Your task to perform on an android device: Open Amazon Image 0: 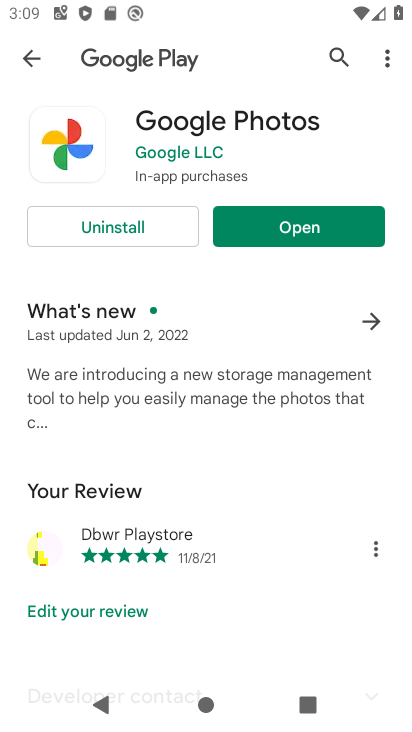
Step 0: press home button
Your task to perform on an android device: Open Amazon Image 1: 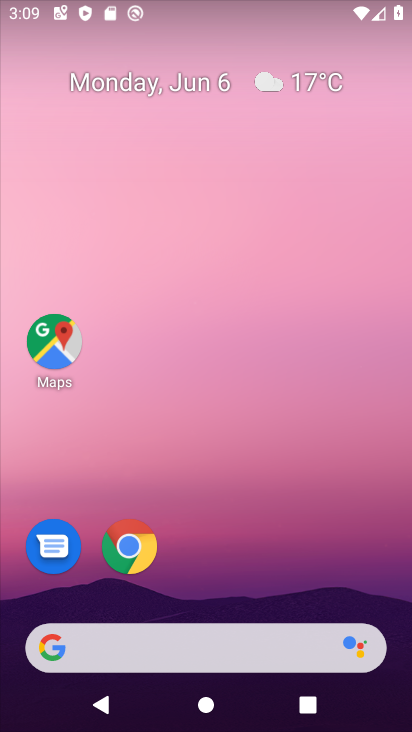
Step 1: click (229, 630)
Your task to perform on an android device: Open Amazon Image 2: 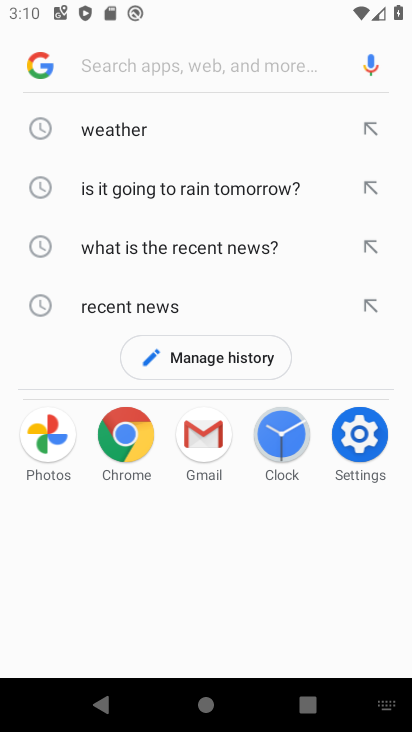
Step 2: type "amazonej"
Your task to perform on an android device: Open Amazon Image 3: 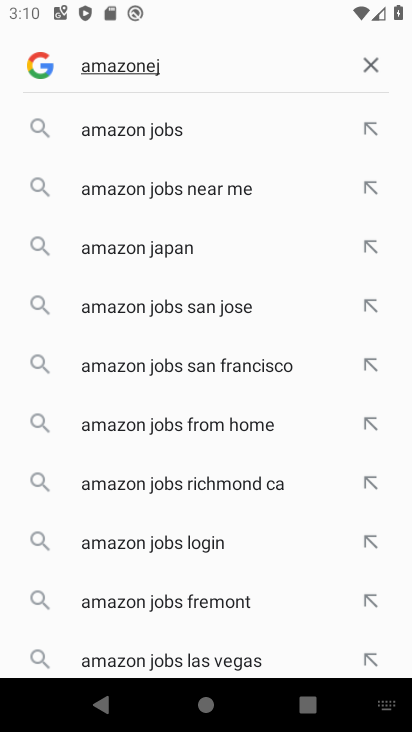
Step 3: click (172, 529)
Your task to perform on an android device: Open Amazon Image 4: 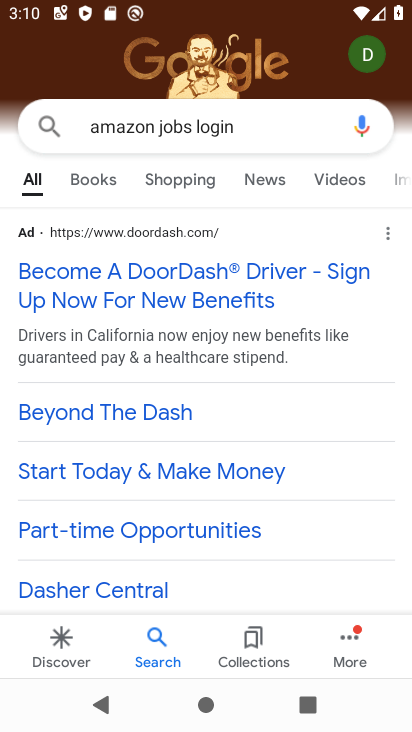
Step 4: task complete